Your task to perform on an android device: turn off notifications settings in the gmail app Image 0: 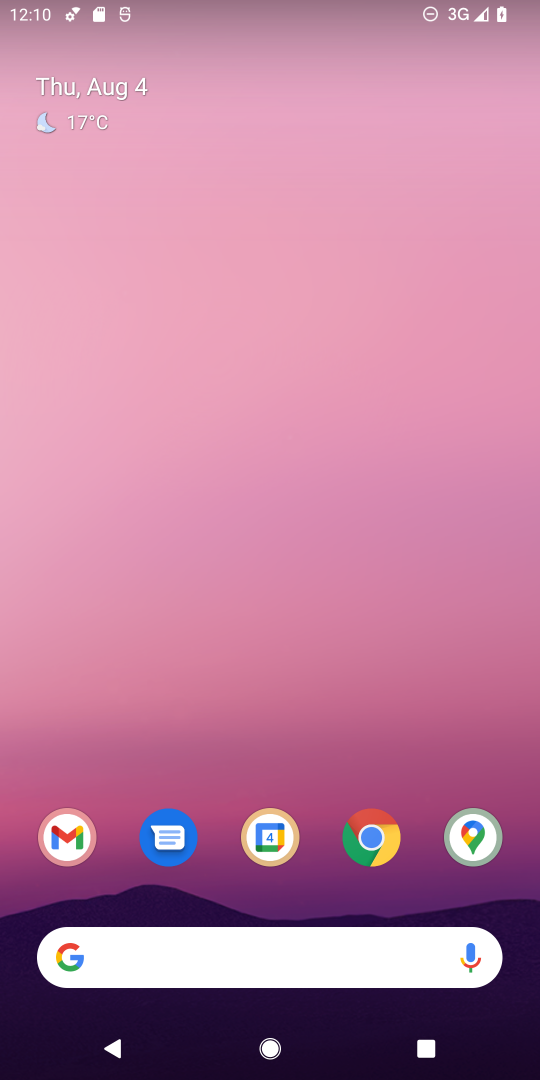
Step 0: drag from (323, 864) to (171, 122)
Your task to perform on an android device: turn off notifications settings in the gmail app Image 1: 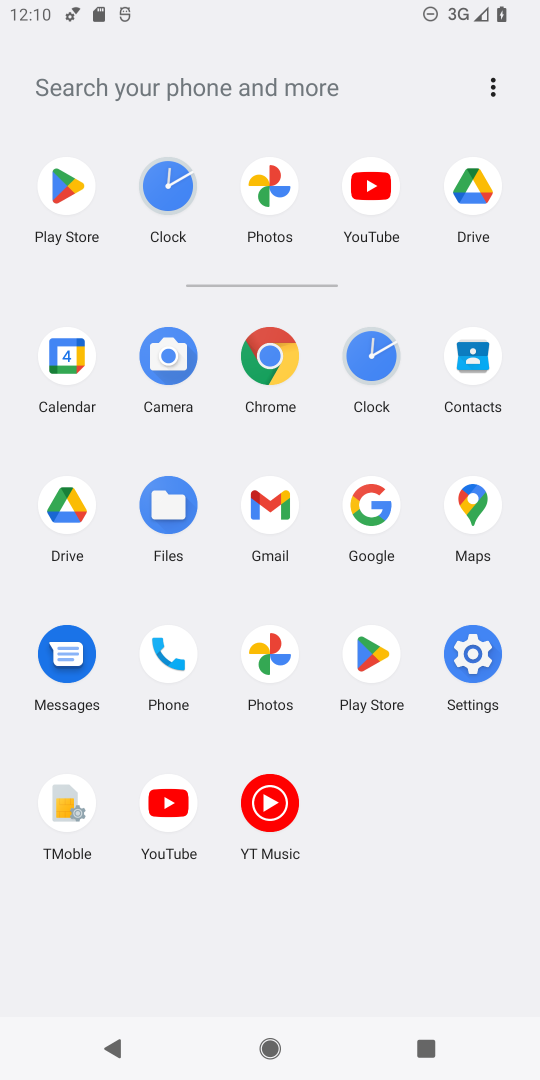
Step 1: click (280, 497)
Your task to perform on an android device: turn off notifications settings in the gmail app Image 2: 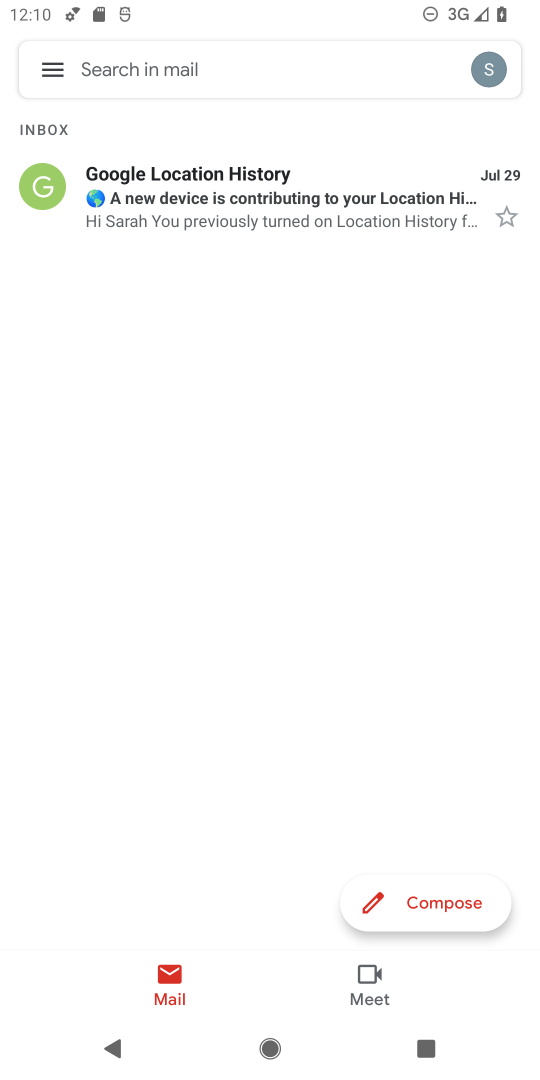
Step 2: click (48, 68)
Your task to perform on an android device: turn off notifications settings in the gmail app Image 3: 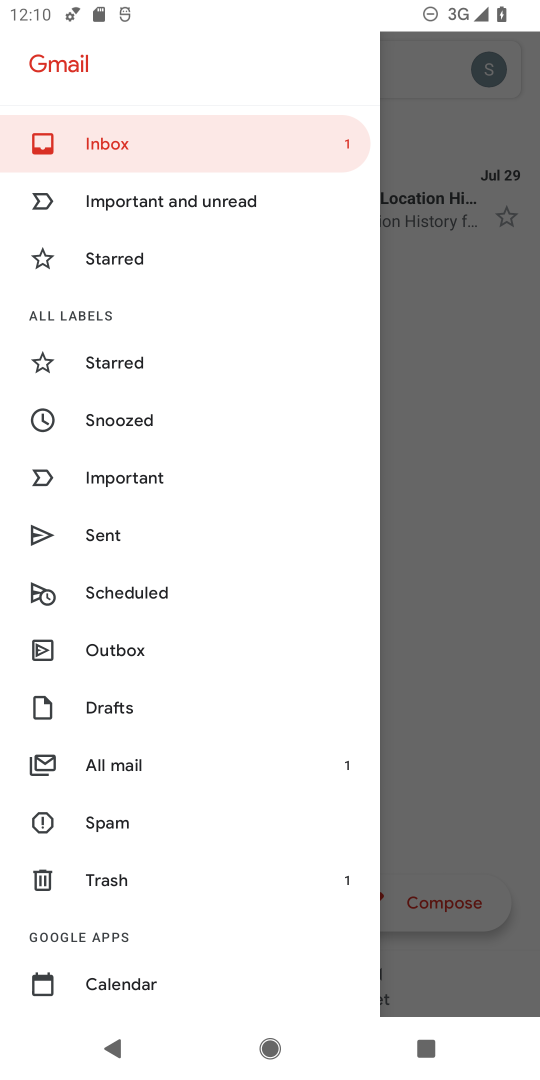
Step 3: drag from (228, 966) to (192, 295)
Your task to perform on an android device: turn off notifications settings in the gmail app Image 4: 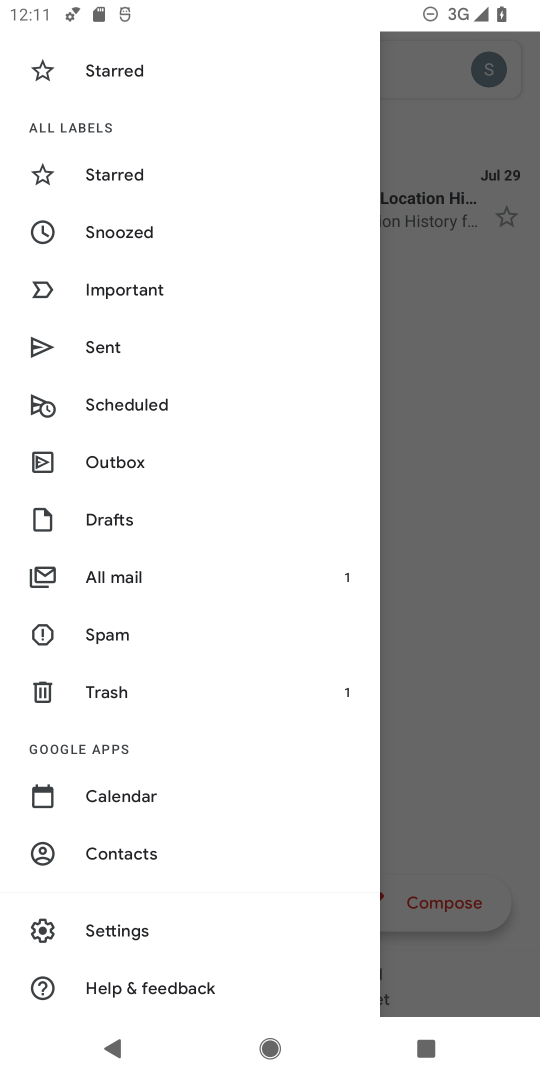
Step 4: click (104, 929)
Your task to perform on an android device: turn off notifications settings in the gmail app Image 5: 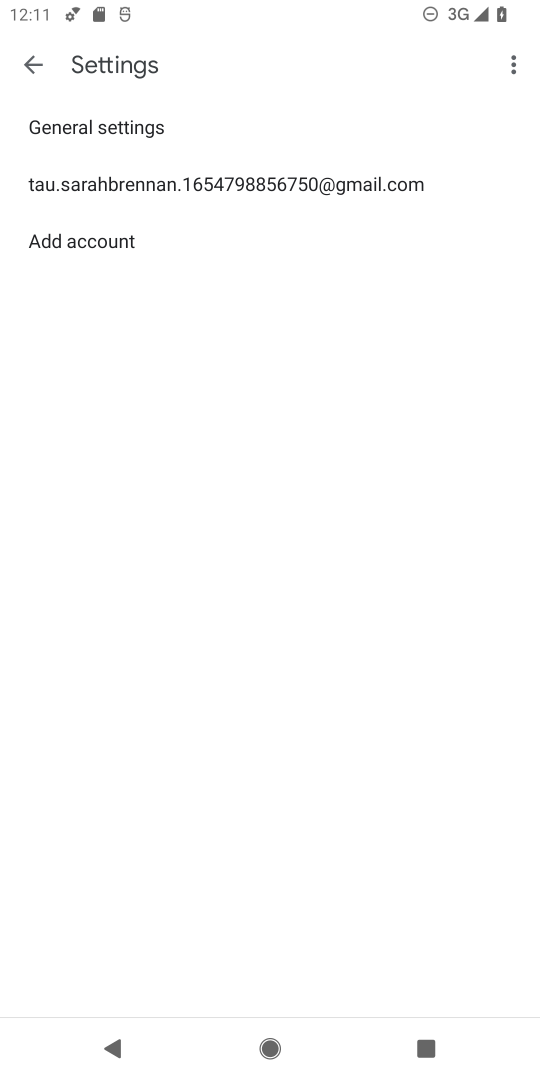
Step 5: click (296, 194)
Your task to perform on an android device: turn off notifications settings in the gmail app Image 6: 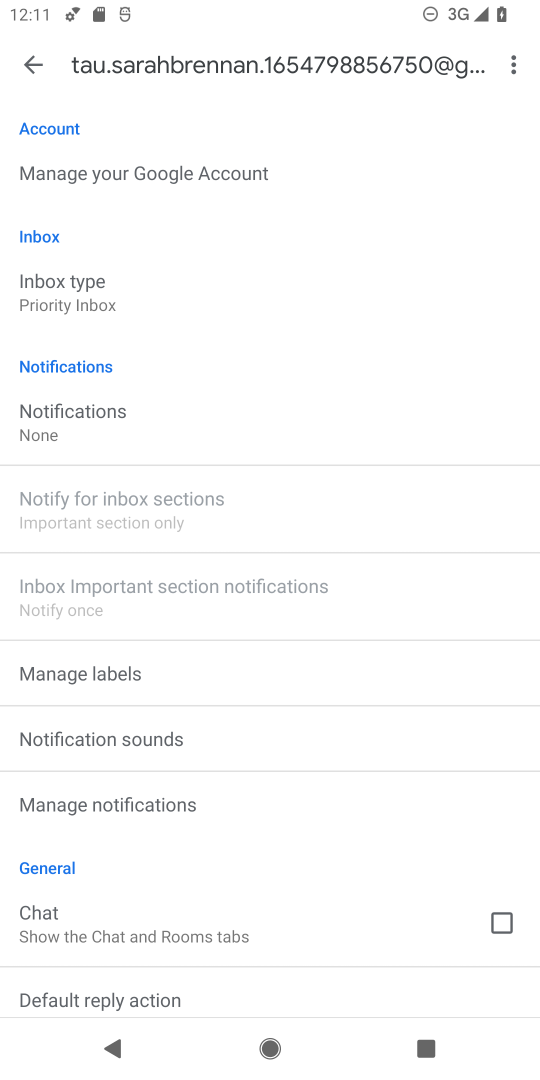
Step 6: click (110, 400)
Your task to perform on an android device: turn off notifications settings in the gmail app Image 7: 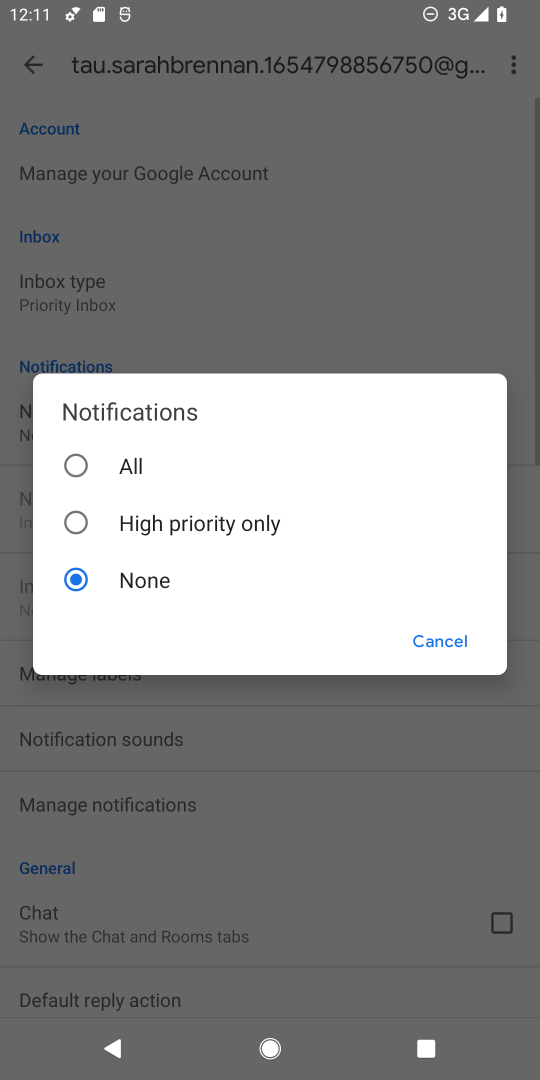
Step 7: click (109, 578)
Your task to perform on an android device: turn off notifications settings in the gmail app Image 8: 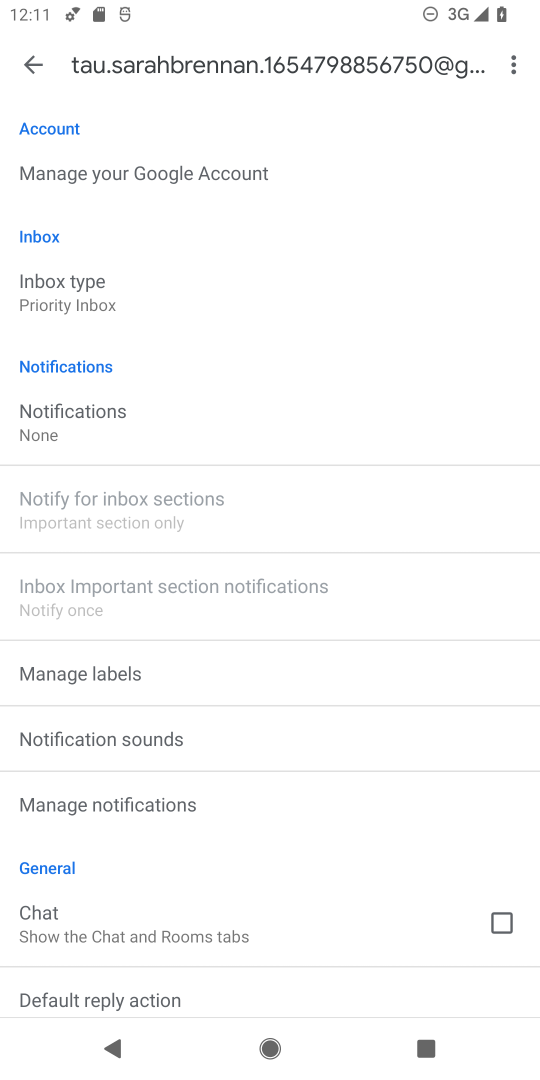
Step 8: task complete